Your task to perform on an android device: Go to notification settings Image 0: 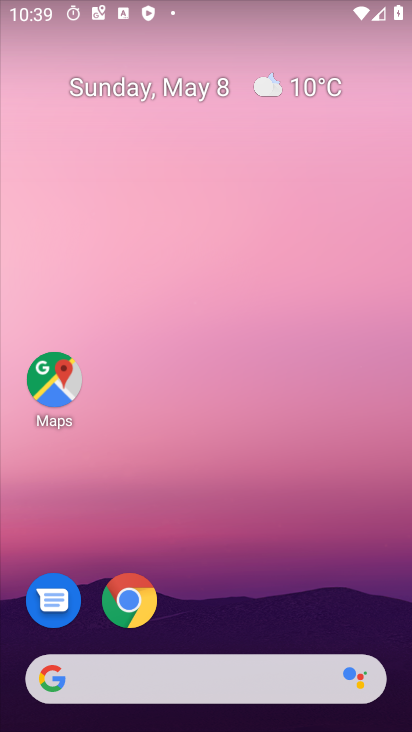
Step 0: drag from (288, 597) to (398, 170)
Your task to perform on an android device: Go to notification settings Image 1: 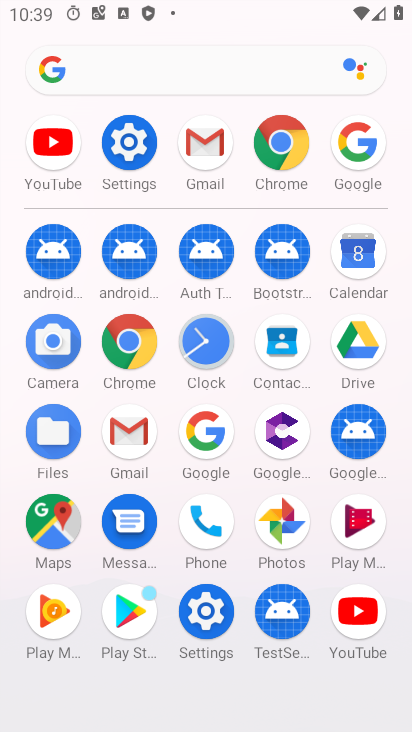
Step 1: click (129, 144)
Your task to perform on an android device: Go to notification settings Image 2: 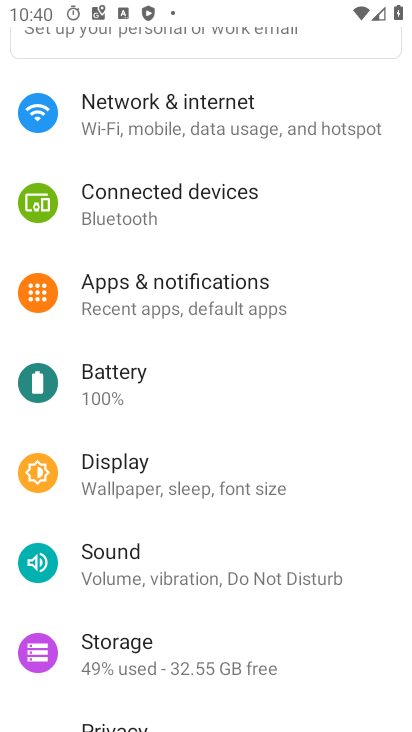
Step 2: click (191, 285)
Your task to perform on an android device: Go to notification settings Image 3: 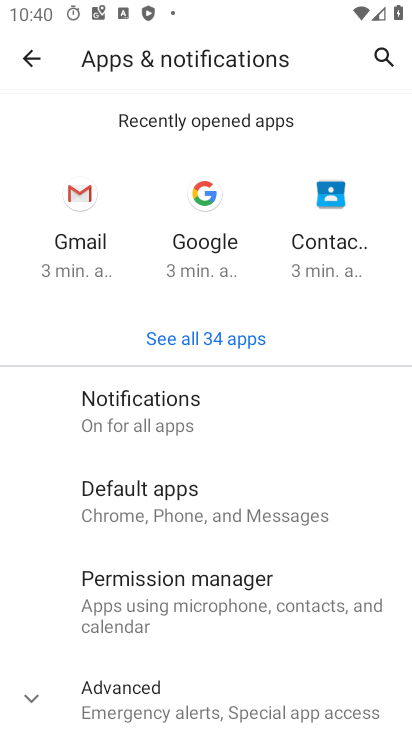
Step 3: click (219, 412)
Your task to perform on an android device: Go to notification settings Image 4: 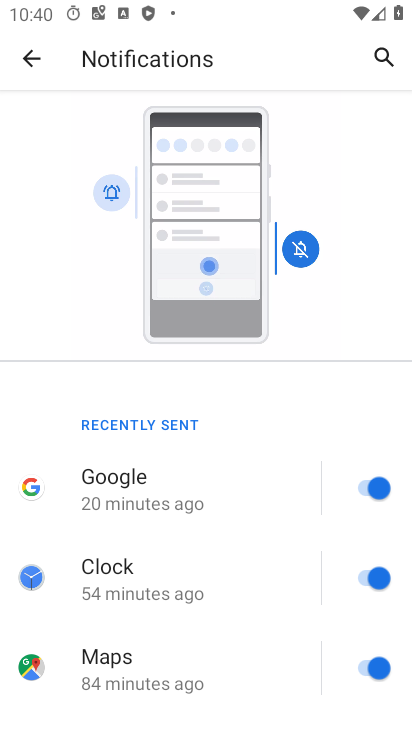
Step 4: task complete